Your task to perform on an android device: find snoozed emails in the gmail app Image 0: 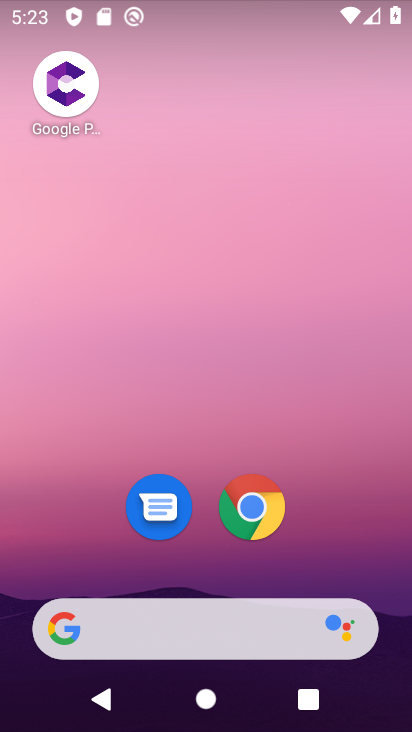
Step 0: drag from (202, 347) to (202, 247)
Your task to perform on an android device: find snoozed emails in the gmail app Image 1: 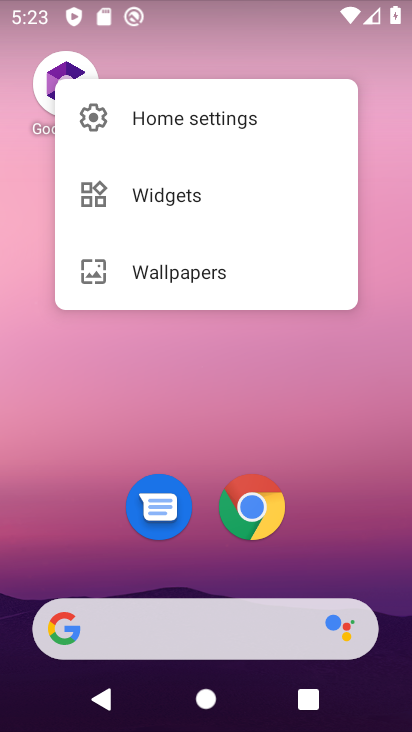
Step 1: click (210, 136)
Your task to perform on an android device: find snoozed emails in the gmail app Image 2: 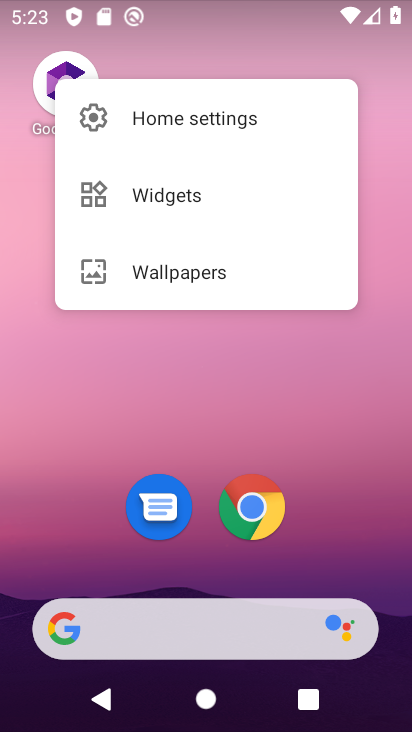
Step 2: click (198, 195)
Your task to perform on an android device: find snoozed emails in the gmail app Image 3: 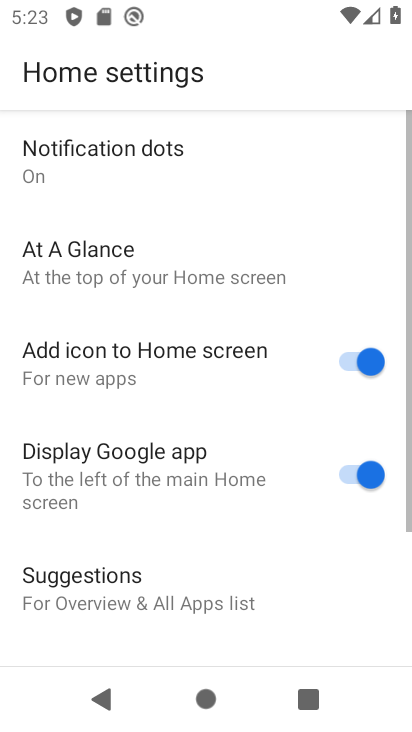
Step 3: click (134, 563)
Your task to perform on an android device: find snoozed emails in the gmail app Image 4: 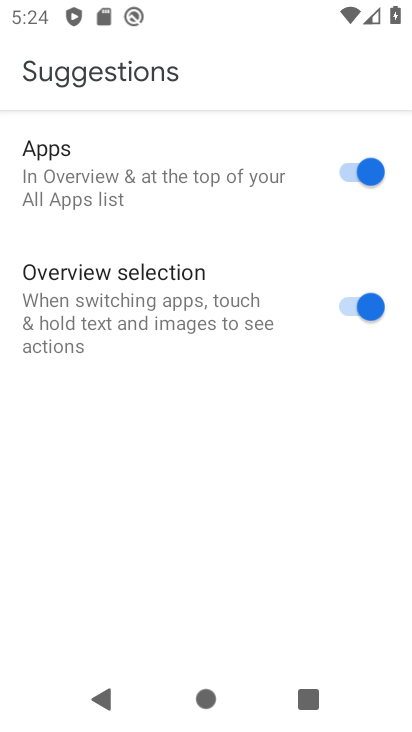
Step 4: task complete